Your task to perform on an android device: Open the web browser Image 0: 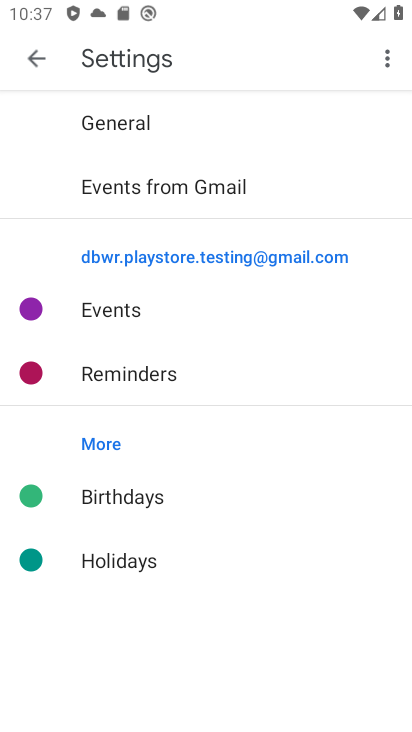
Step 0: press home button
Your task to perform on an android device: Open the web browser Image 1: 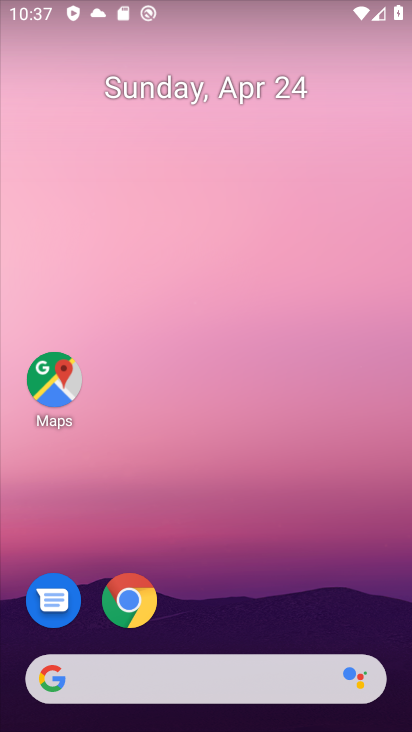
Step 1: click (135, 595)
Your task to perform on an android device: Open the web browser Image 2: 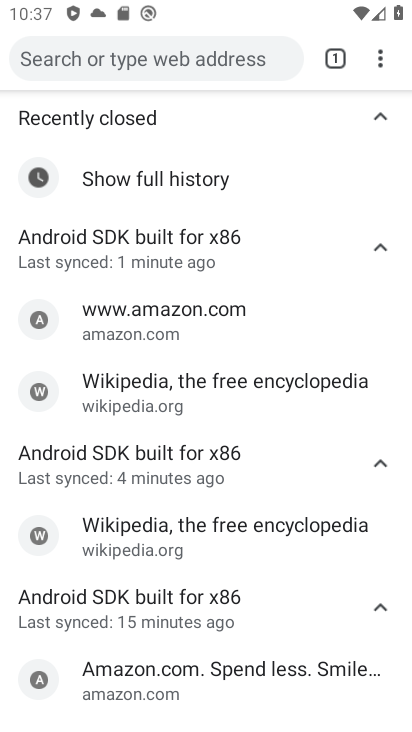
Step 2: click (381, 55)
Your task to perform on an android device: Open the web browser Image 3: 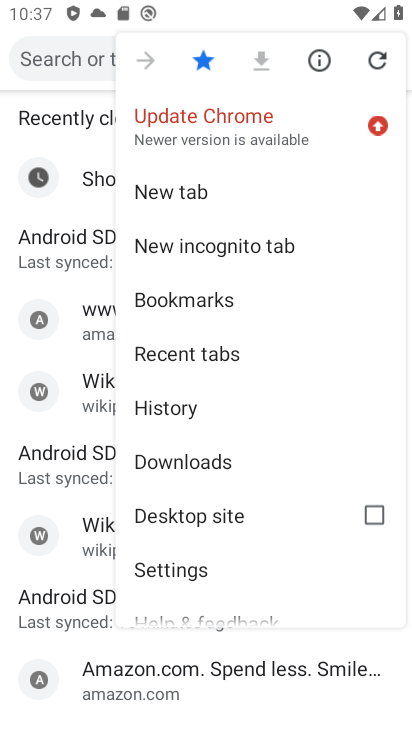
Step 3: click (173, 183)
Your task to perform on an android device: Open the web browser Image 4: 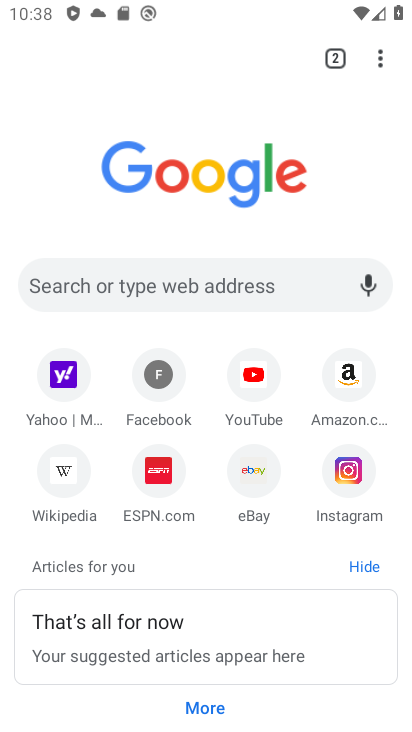
Step 4: task complete